Your task to perform on an android device: turn on wifi Image 0: 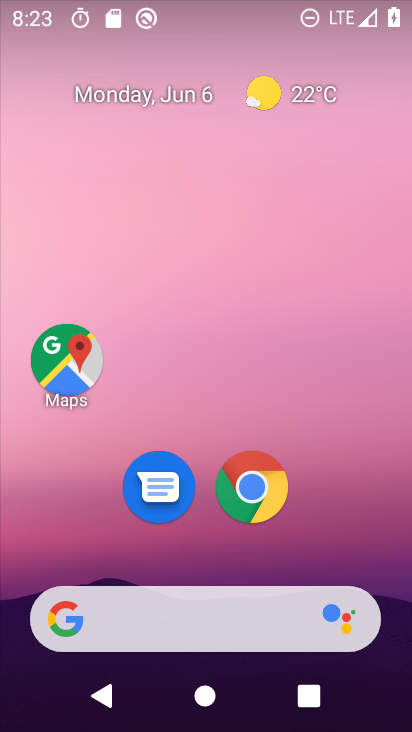
Step 0: drag from (186, 3) to (227, 537)
Your task to perform on an android device: turn on wifi Image 1: 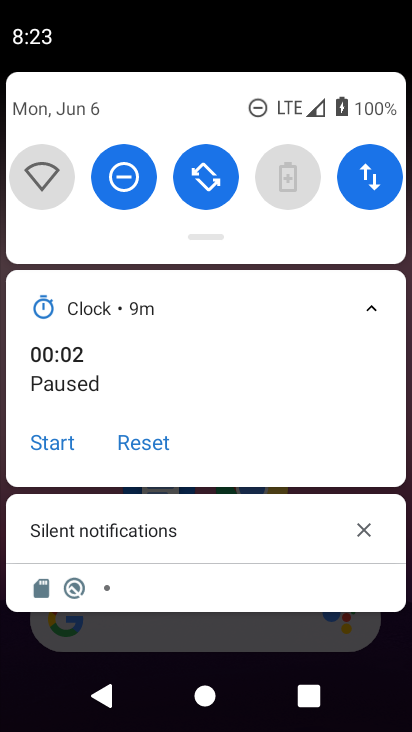
Step 1: click (43, 185)
Your task to perform on an android device: turn on wifi Image 2: 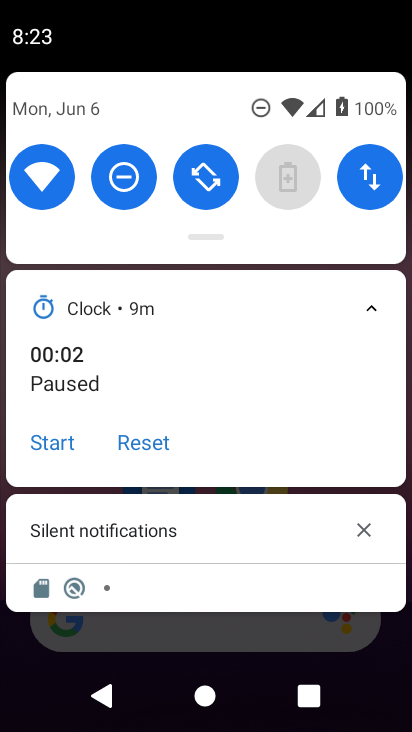
Step 2: task complete